Your task to perform on an android device: Open Chrome and go to settings Image 0: 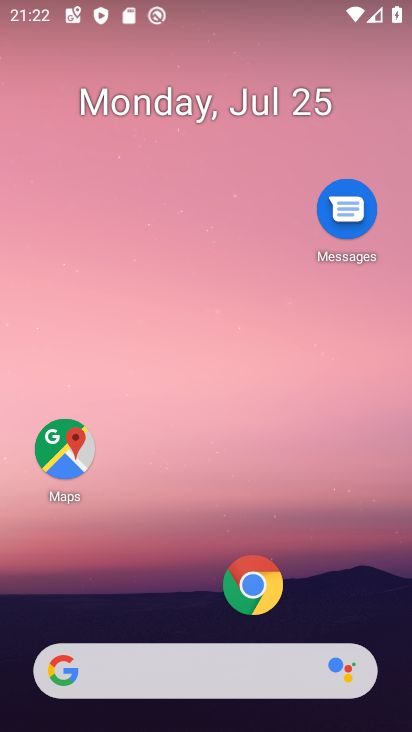
Step 0: click (254, 590)
Your task to perform on an android device: Open Chrome and go to settings Image 1: 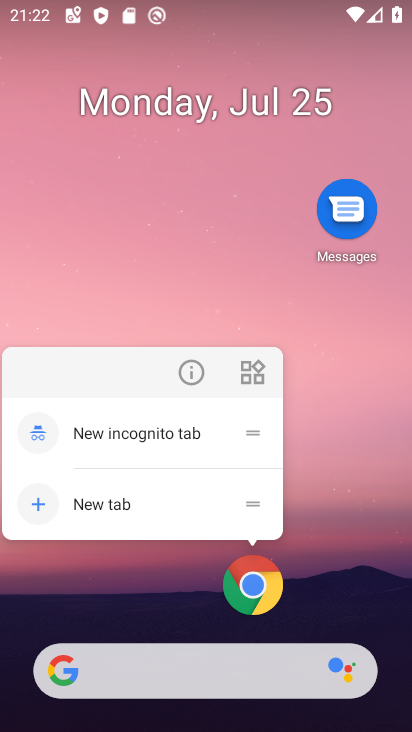
Step 1: click (254, 590)
Your task to perform on an android device: Open Chrome and go to settings Image 2: 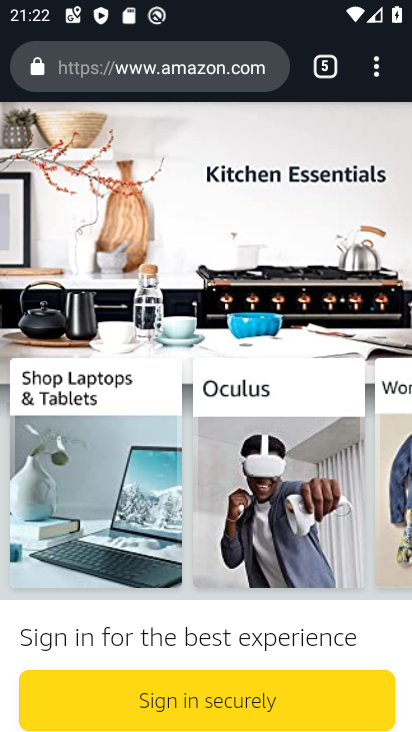
Step 2: task complete